Your task to perform on an android device: open a new tab in the chrome app Image 0: 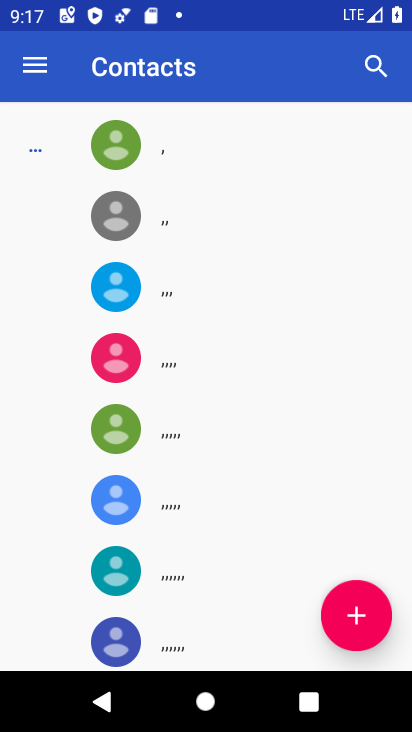
Step 0: press home button
Your task to perform on an android device: open a new tab in the chrome app Image 1: 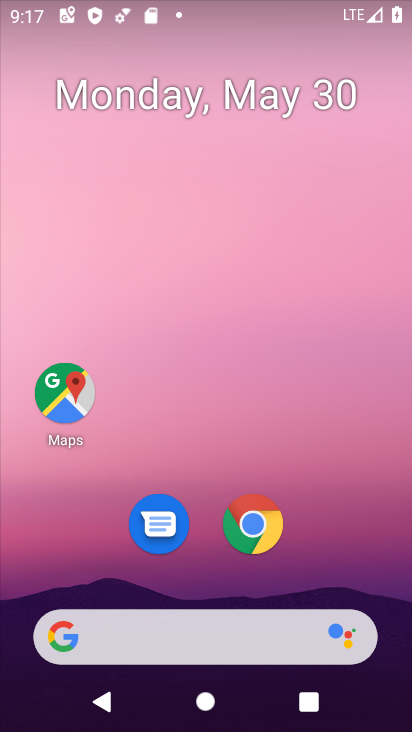
Step 1: click (269, 525)
Your task to perform on an android device: open a new tab in the chrome app Image 2: 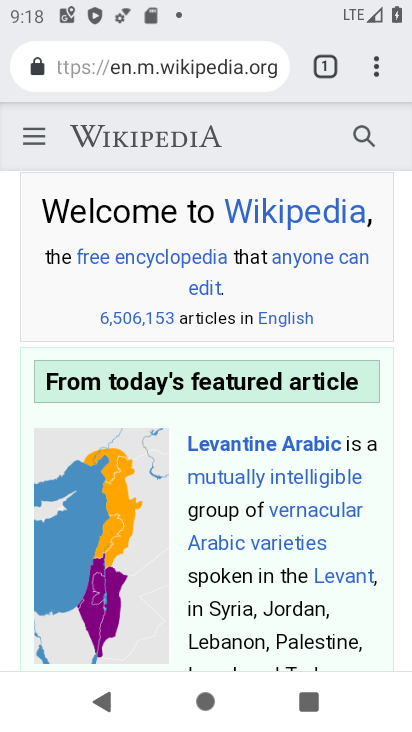
Step 2: click (375, 66)
Your task to perform on an android device: open a new tab in the chrome app Image 3: 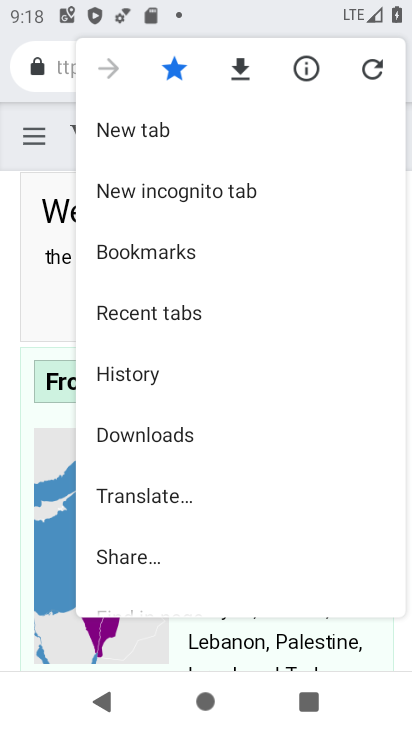
Step 3: click (295, 125)
Your task to perform on an android device: open a new tab in the chrome app Image 4: 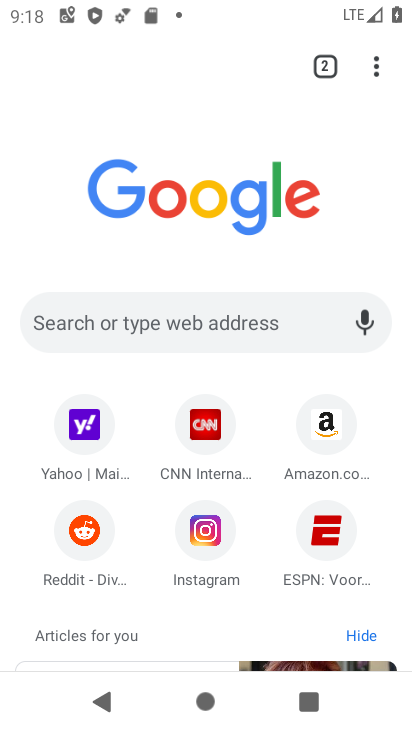
Step 4: task complete